Your task to perform on an android device: uninstall "Paramount+ | Peak Streaming" Image 0: 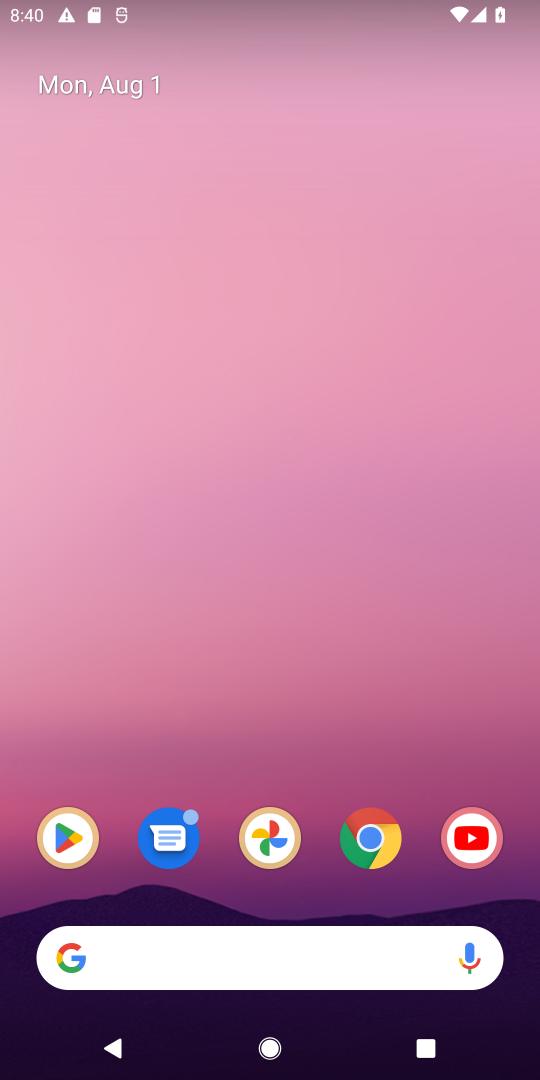
Step 0: drag from (299, 940) to (352, 11)
Your task to perform on an android device: uninstall "Paramount+ | Peak Streaming" Image 1: 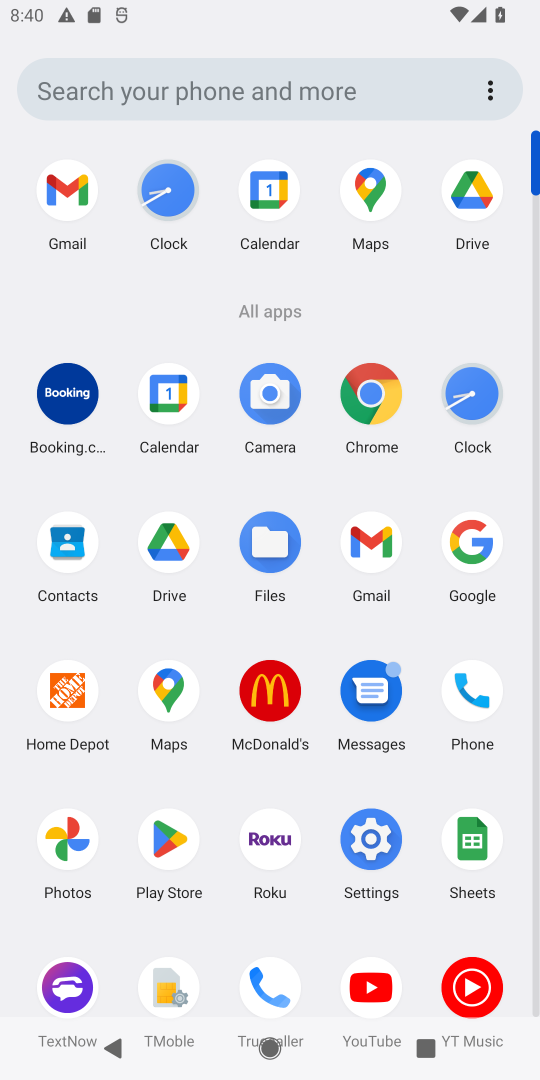
Step 1: click (153, 840)
Your task to perform on an android device: uninstall "Paramount+ | Peak Streaming" Image 2: 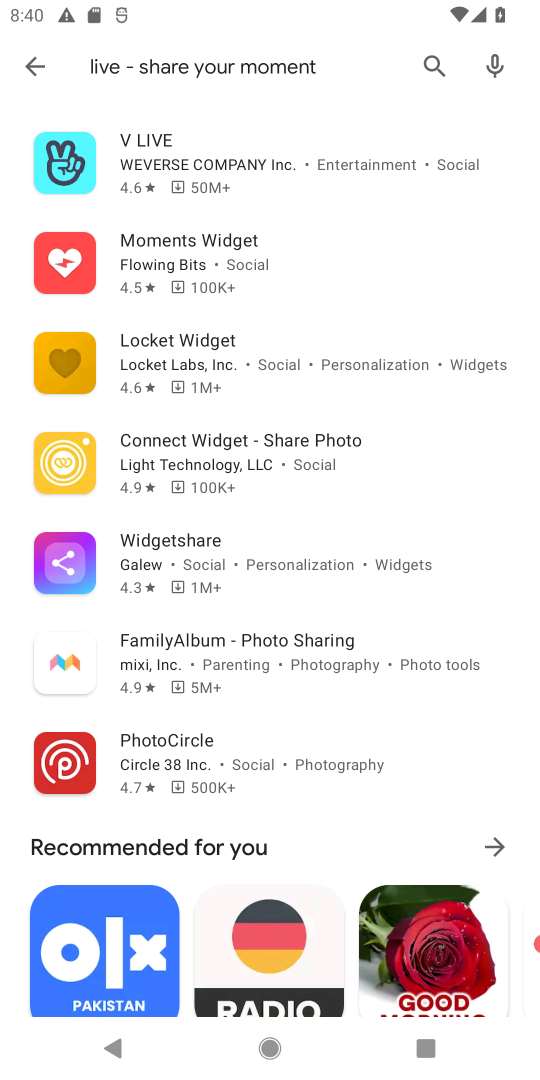
Step 2: click (433, 61)
Your task to perform on an android device: uninstall "Paramount+ | Peak Streaming" Image 3: 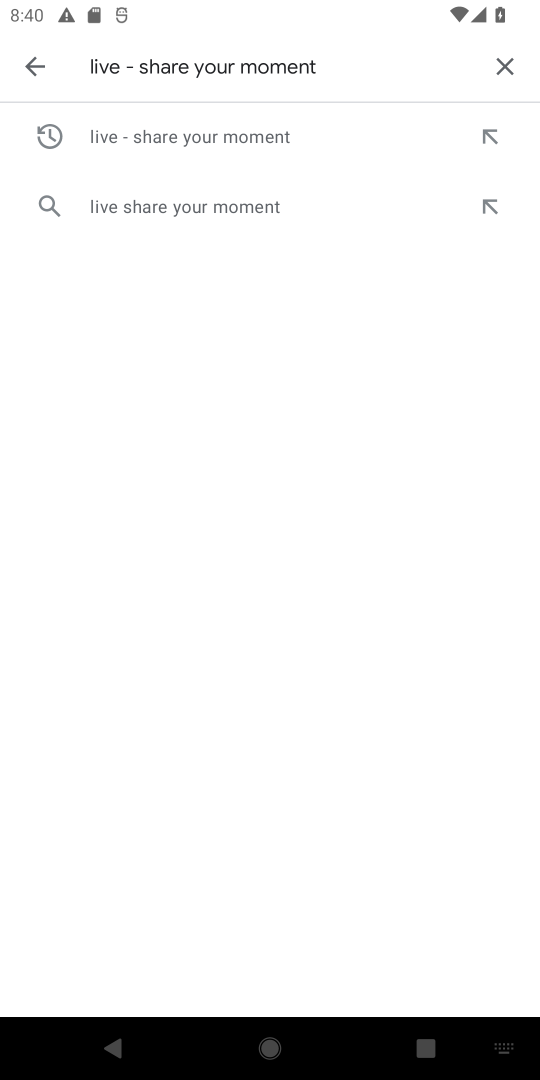
Step 3: click (509, 58)
Your task to perform on an android device: uninstall "Paramount+ | Peak Streaming" Image 4: 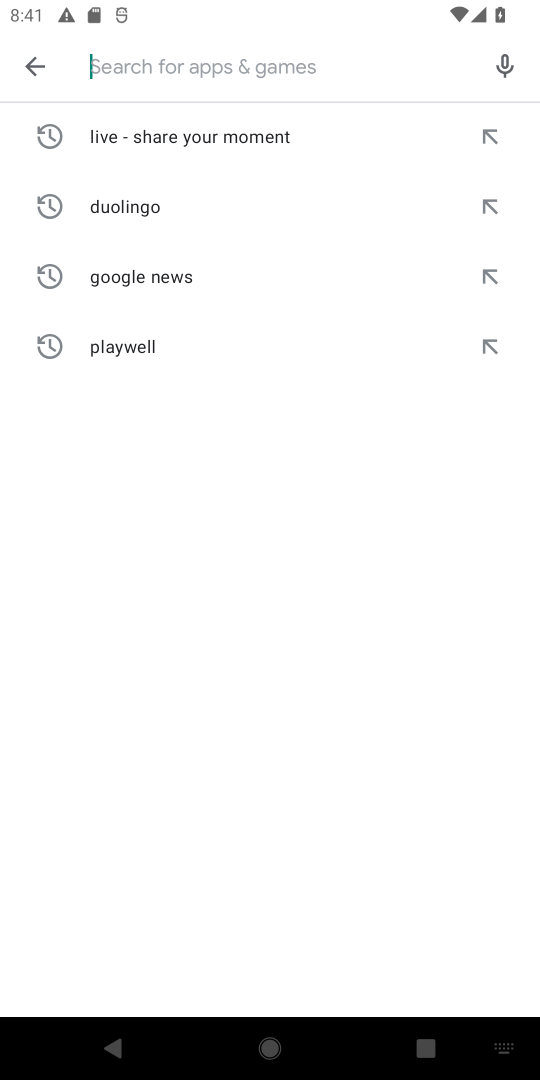
Step 4: type "paramount+ | peak streaming"
Your task to perform on an android device: uninstall "Paramount+ | Peak Streaming" Image 5: 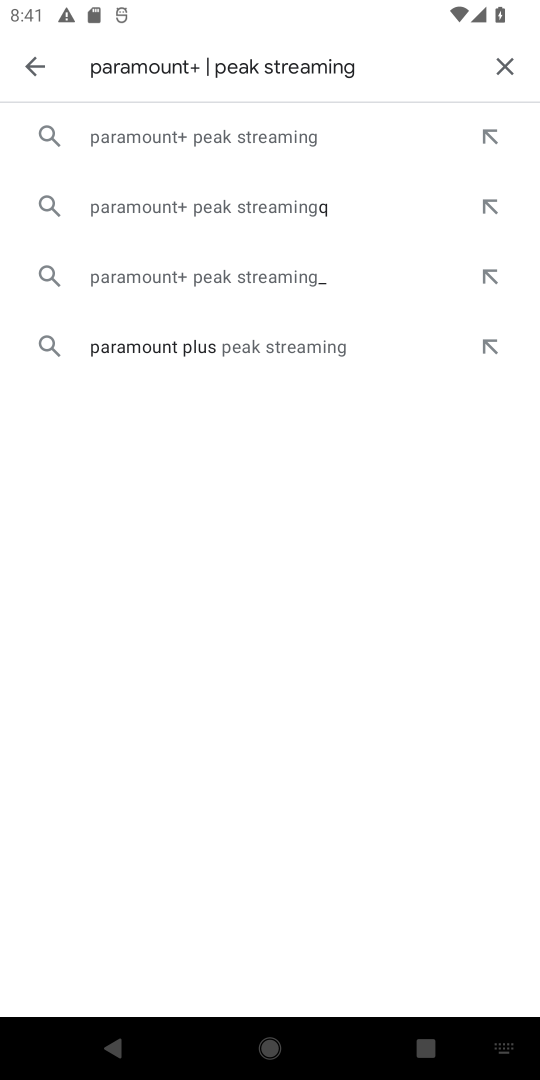
Step 5: click (216, 134)
Your task to perform on an android device: uninstall "Paramount+ | Peak Streaming" Image 6: 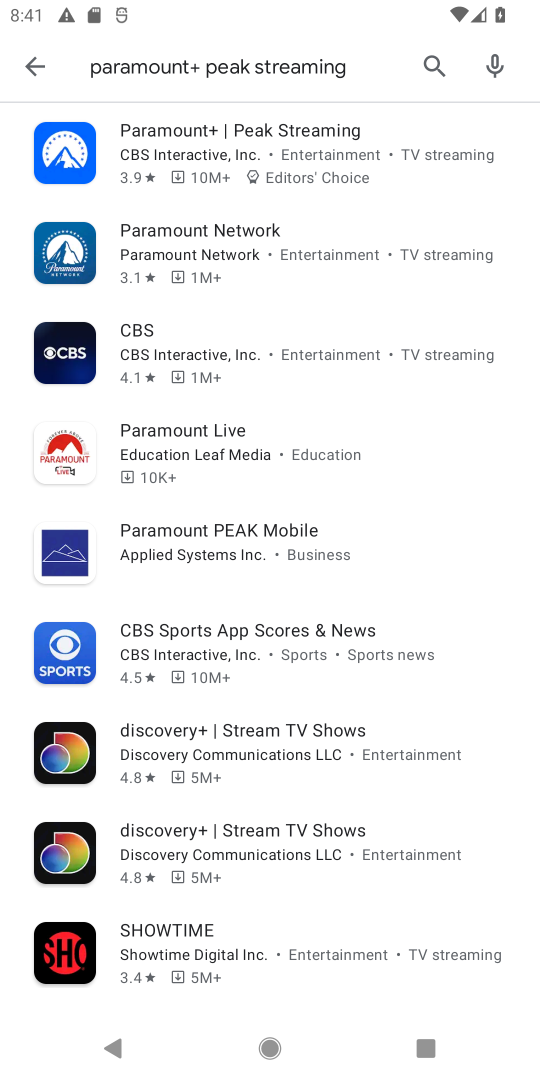
Step 6: click (402, 146)
Your task to perform on an android device: uninstall "Paramount+ | Peak Streaming" Image 7: 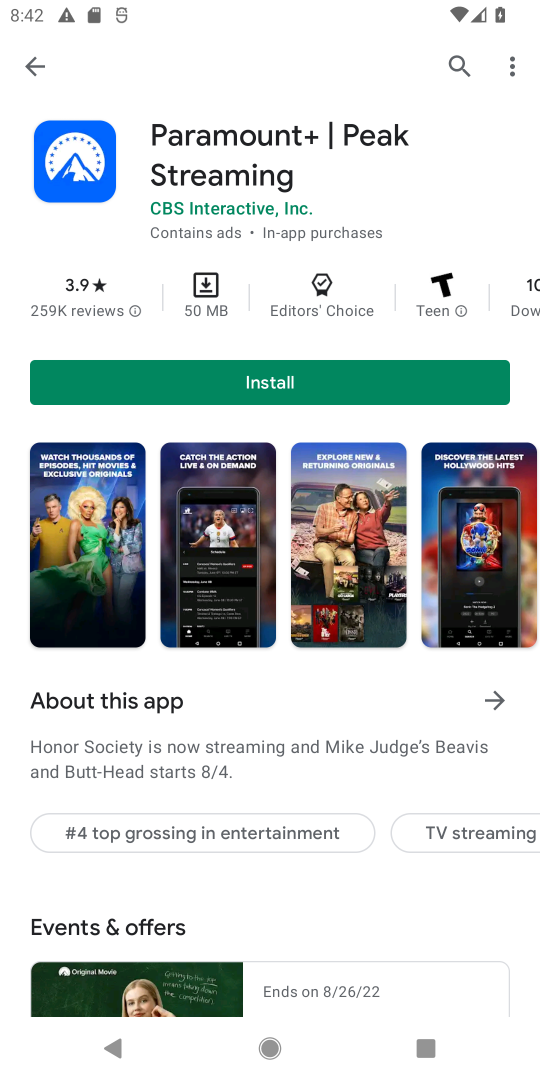
Step 7: task complete